Your task to perform on an android device: turn on bluetooth scan Image 0: 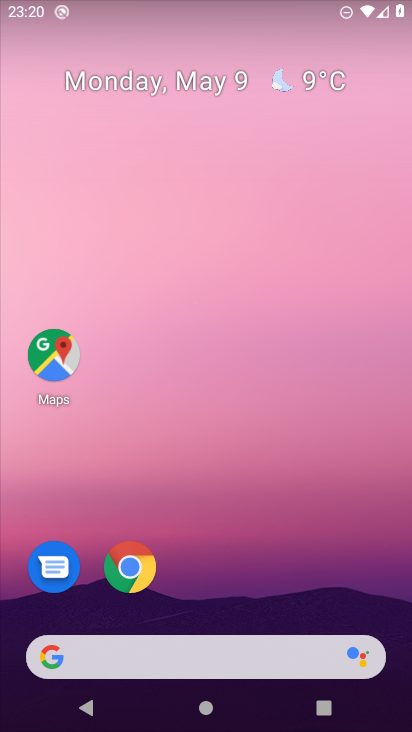
Step 0: drag from (211, 619) to (255, 83)
Your task to perform on an android device: turn on bluetooth scan Image 1: 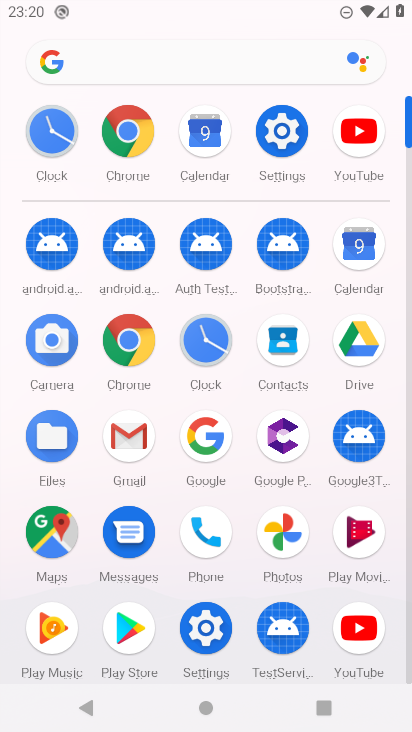
Step 1: click (279, 122)
Your task to perform on an android device: turn on bluetooth scan Image 2: 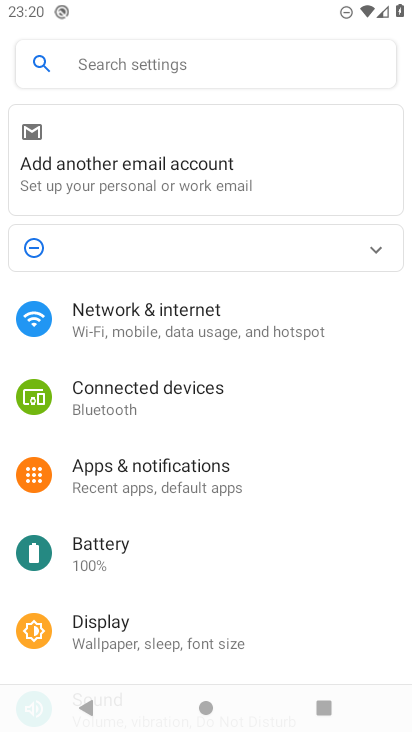
Step 2: drag from (172, 602) to (189, 434)
Your task to perform on an android device: turn on bluetooth scan Image 3: 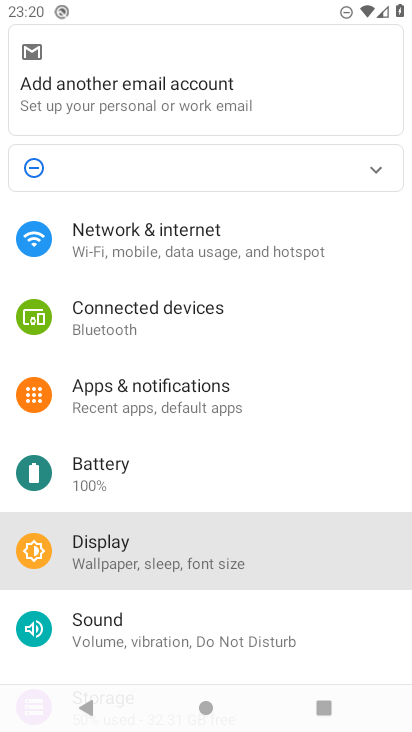
Step 3: drag from (209, 238) to (219, 149)
Your task to perform on an android device: turn on bluetooth scan Image 4: 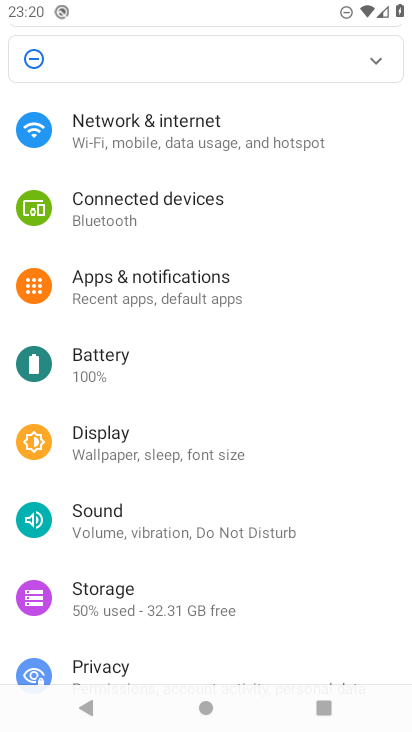
Step 4: drag from (189, 630) to (206, 177)
Your task to perform on an android device: turn on bluetooth scan Image 5: 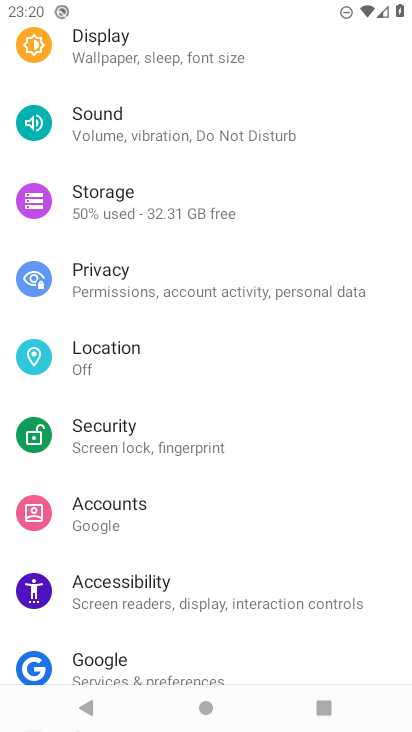
Step 5: click (123, 360)
Your task to perform on an android device: turn on bluetooth scan Image 6: 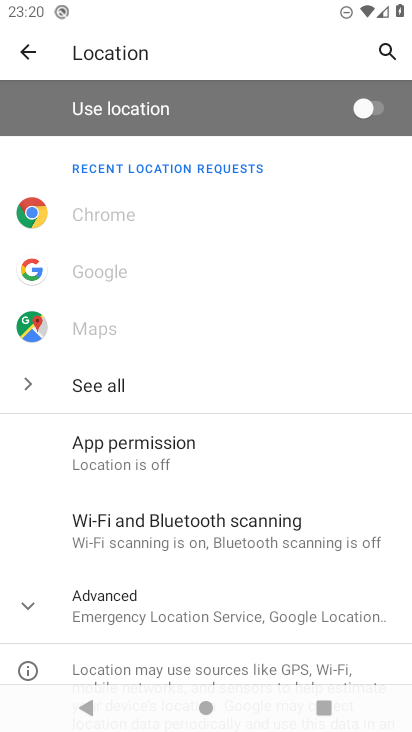
Step 6: click (221, 532)
Your task to perform on an android device: turn on bluetooth scan Image 7: 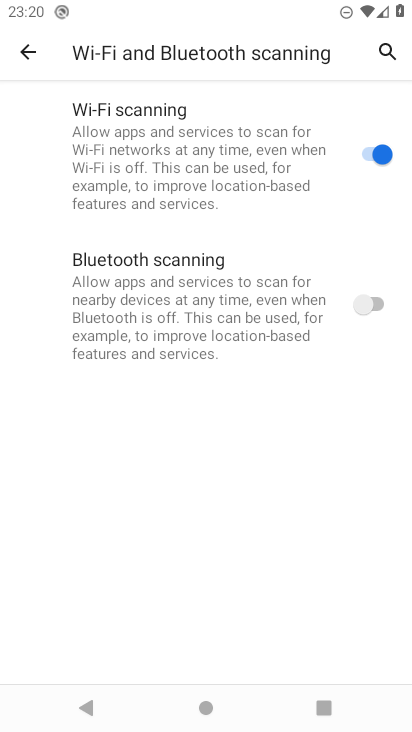
Step 7: click (371, 303)
Your task to perform on an android device: turn on bluetooth scan Image 8: 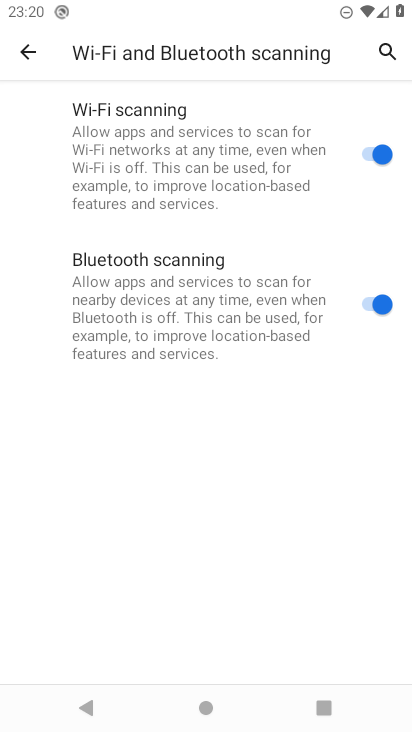
Step 8: task complete